Your task to perform on an android device: check battery use Image 0: 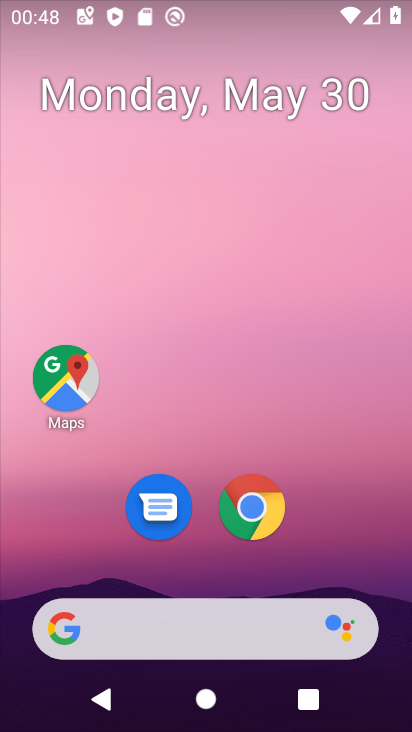
Step 0: drag from (270, 557) to (184, 224)
Your task to perform on an android device: check battery use Image 1: 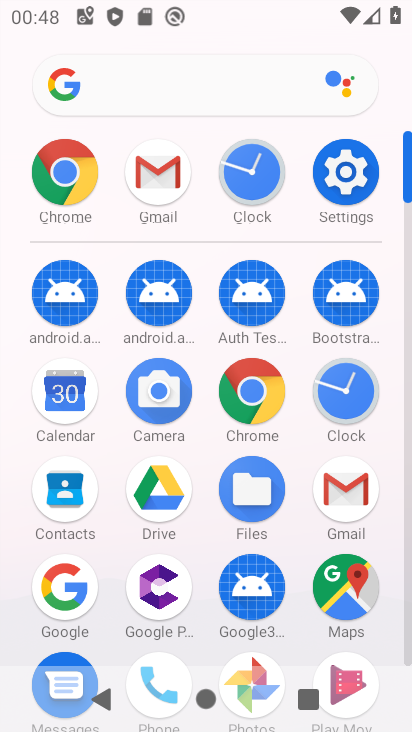
Step 1: click (332, 176)
Your task to perform on an android device: check battery use Image 2: 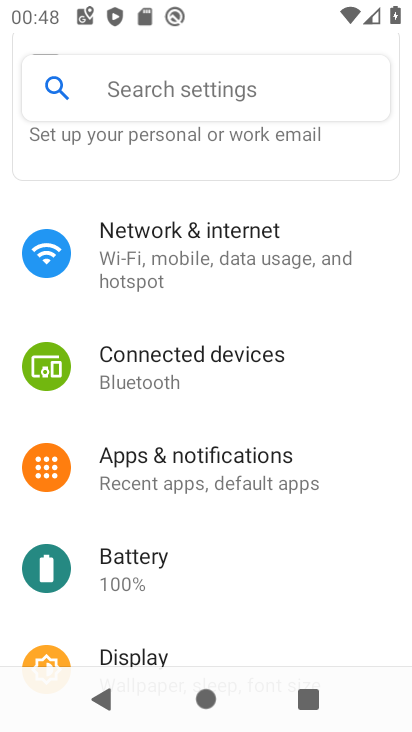
Step 2: click (204, 558)
Your task to perform on an android device: check battery use Image 3: 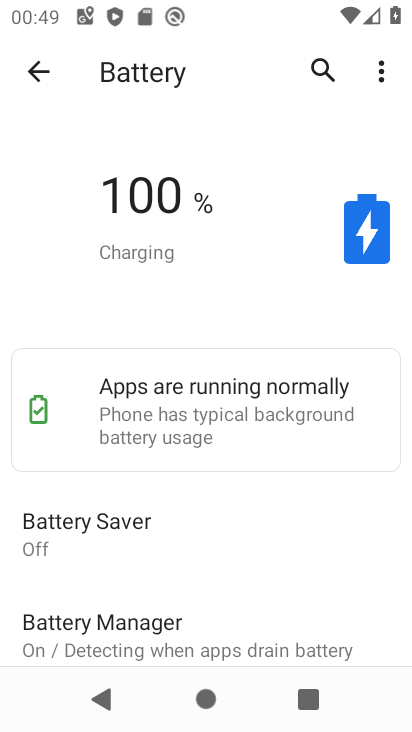
Step 3: task complete